Your task to perform on an android device: turn on wifi Image 0: 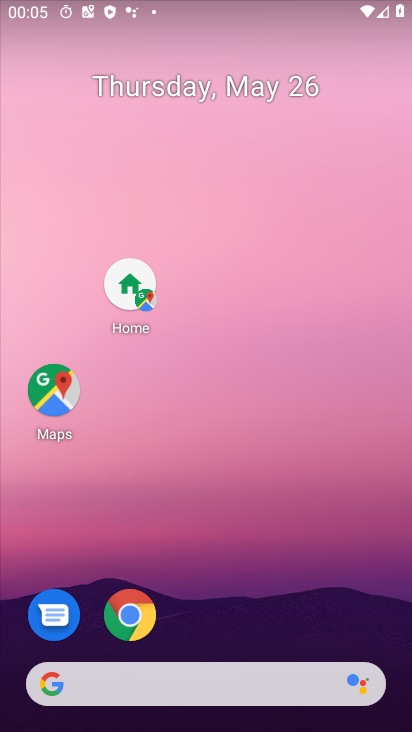
Step 0: press home button
Your task to perform on an android device: turn on wifi Image 1: 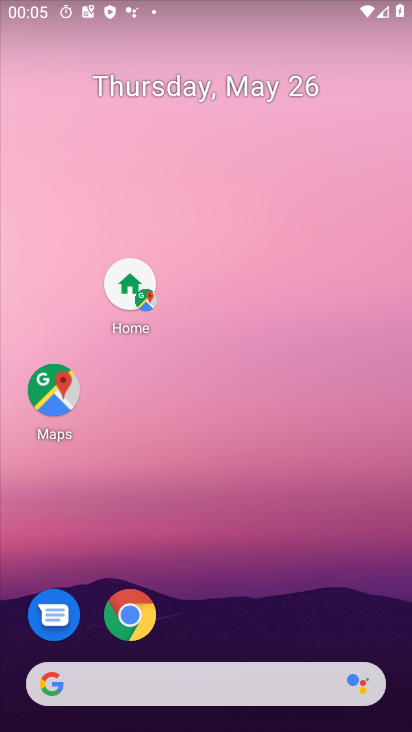
Step 1: drag from (206, 17) to (210, 318)
Your task to perform on an android device: turn on wifi Image 2: 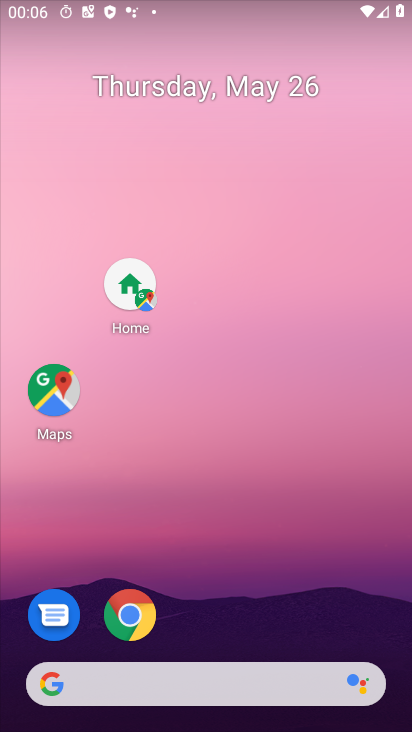
Step 2: drag from (273, 585) to (244, 29)
Your task to perform on an android device: turn on wifi Image 3: 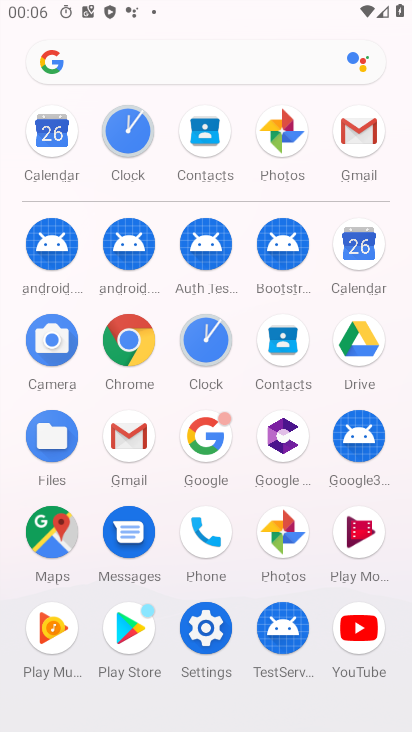
Step 3: click (193, 615)
Your task to perform on an android device: turn on wifi Image 4: 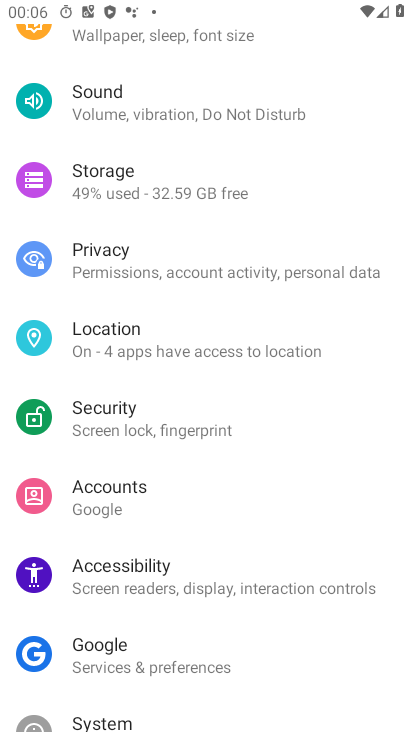
Step 4: drag from (283, 190) to (377, 703)
Your task to perform on an android device: turn on wifi Image 5: 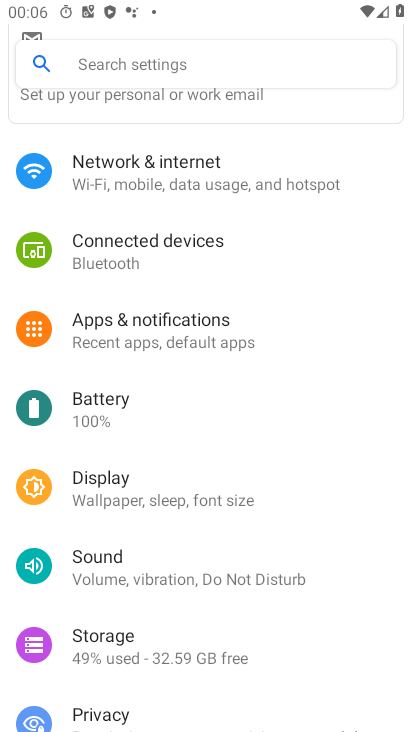
Step 5: click (127, 182)
Your task to perform on an android device: turn on wifi Image 6: 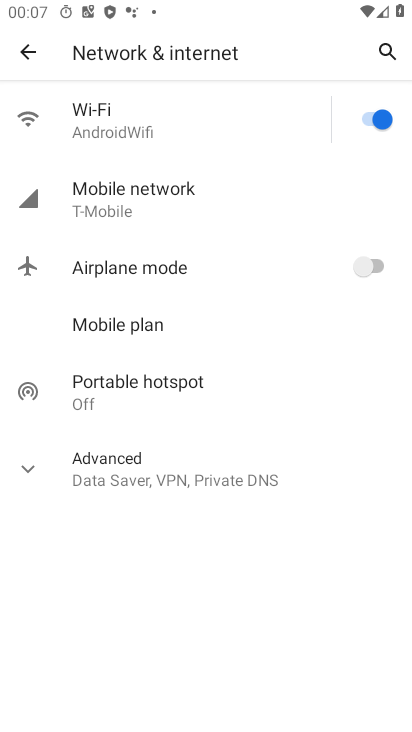
Step 6: task complete